Your task to perform on an android device: open the mobile data screen to see how much data has been used Image 0: 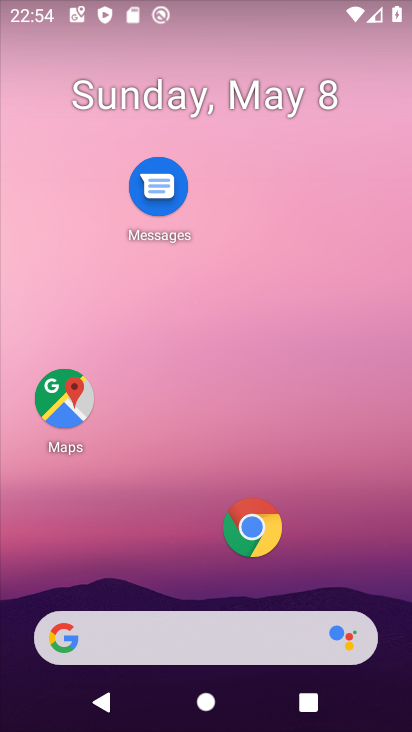
Step 0: drag from (172, 548) to (218, 90)
Your task to perform on an android device: open the mobile data screen to see how much data has been used Image 1: 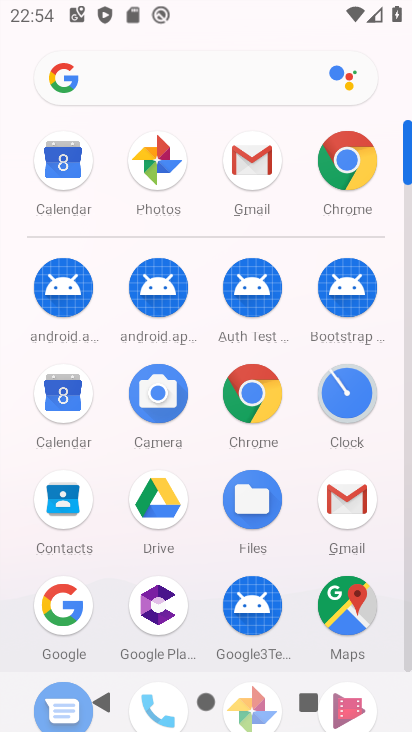
Step 1: drag from (202, 597) to (228, 112)
Your task to perform on an android device: open the mobile data screen to see how much data has been used Image 2: 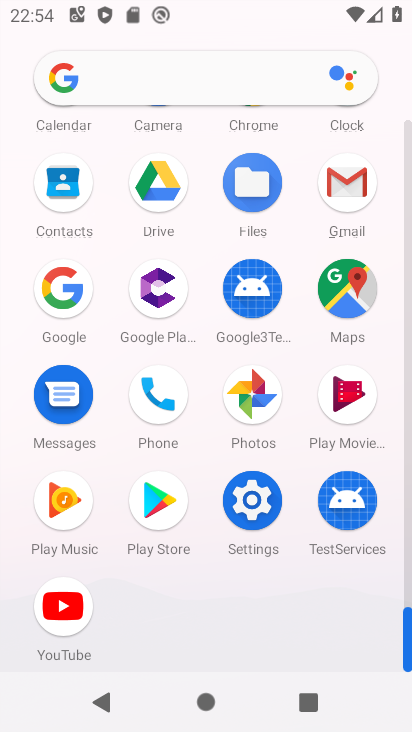
Step 2: click (243, 504)
Your task to perform on an android device: open the mobile data screen to see how much data has been used Image 3: 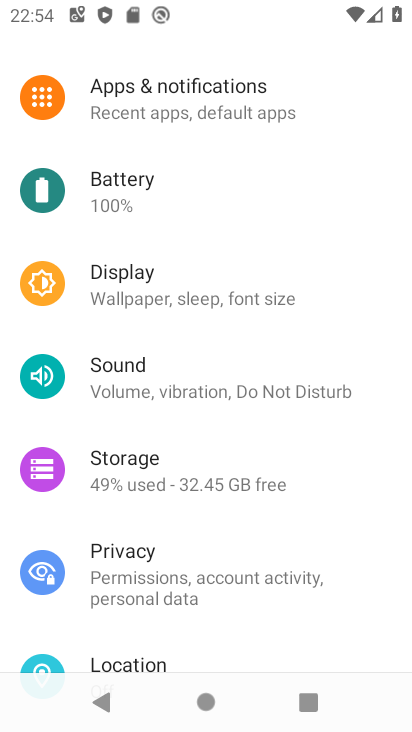
Step 3: drag from (150, 102) to (184, 592)
Your task to perform on an android device: open the mobile data screen to see how much data has been used Image 4: 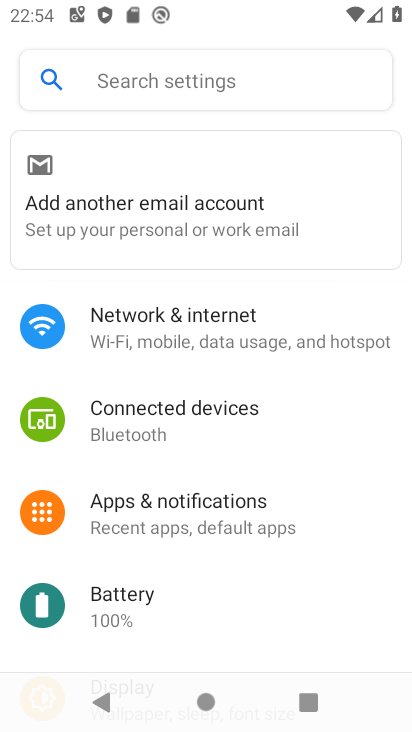
Step 4: click (150, 317)
Your task to perform on an android device: open the mobile data screen to see how much data has been used Image 5: 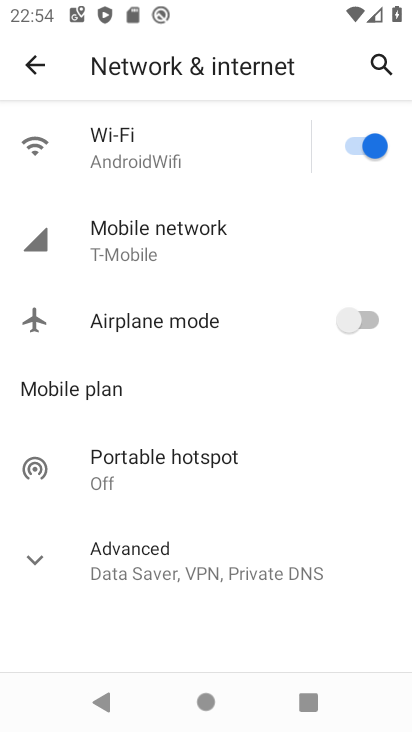
Step 5: click (173, 232)
Your task to perform on an android device: open the mobile data screen to see how much data has been used Image 6: 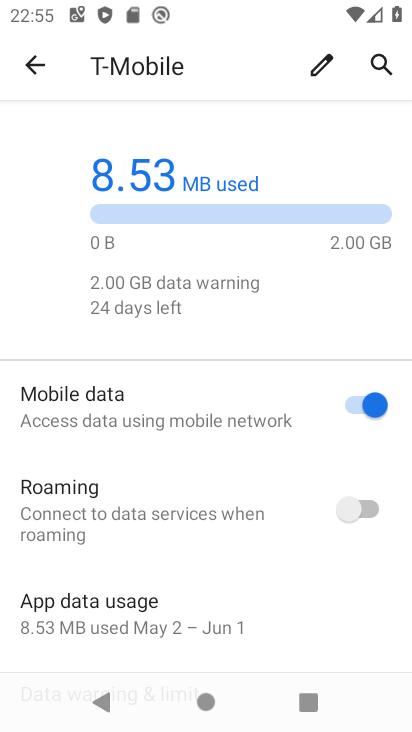
Step 6: task complete